Your task to perform on an android device: set default search engine in the chrome app Image 0: 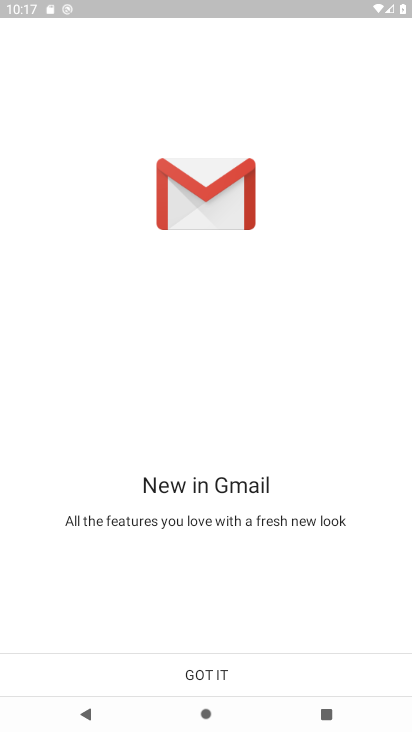
Step 0: press home button
Your task to perform on an android device: set default search engine in the chrome app Image 1: 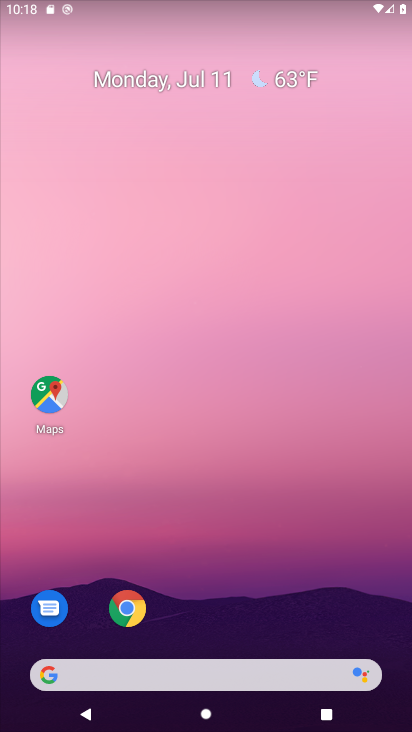
Step 1: click (124, 610)
Your task to perform on an android device: set default search engine in the chrome app Image 2: 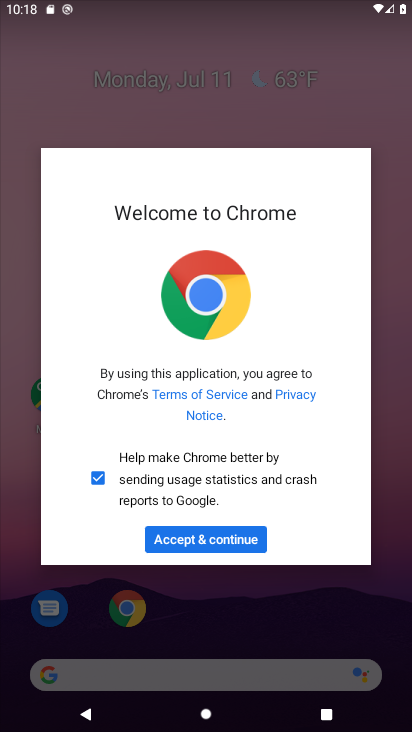
Step 2: click (229, 537)
Your task to perform on an android device: set default search engine in the chrome app Image 3: 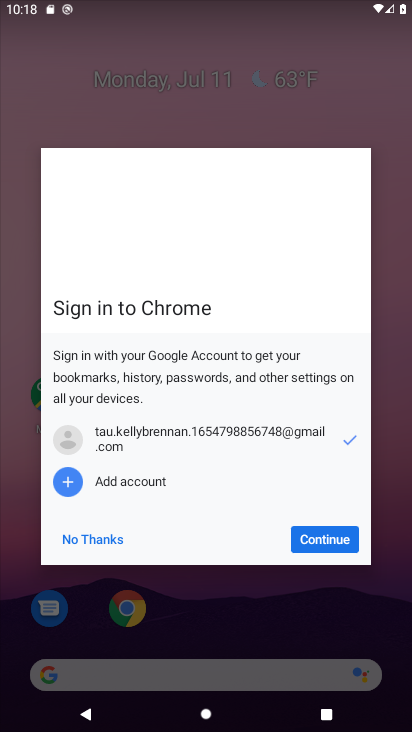
Step 3: click (318, 537)
Your task to perform on an android device: set default search engine in the chrome app Image 4: 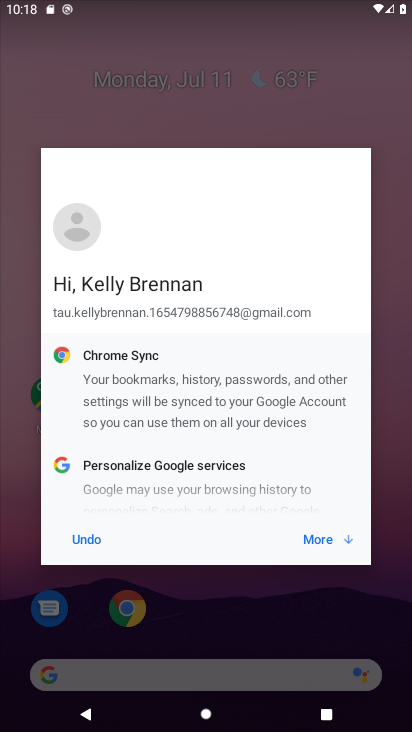
Step 4: click (323, 537)
Your task to perform on an android device: set default search engine in the chrome app Image 5: 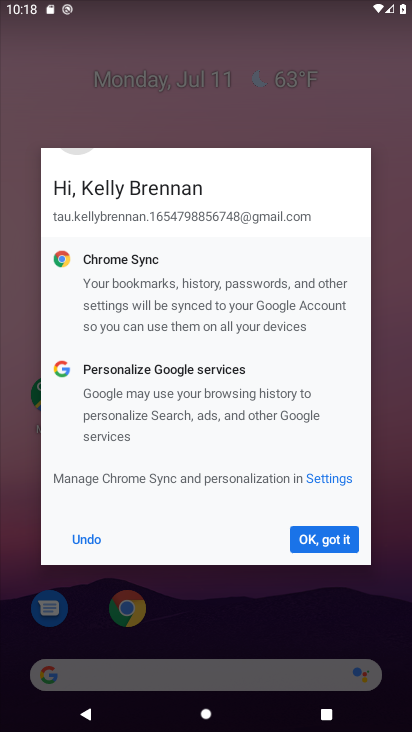
Step 5: click (323, 537)
Your task to perform on an android device: set default search engine in the chrome app Image 6: 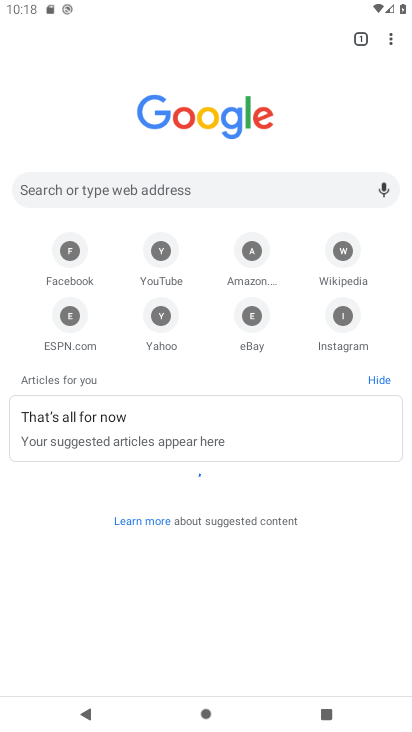
Step 6: click (390, 42)
Your task to perform on an android device: set default search engine in the chrome app Image 7: 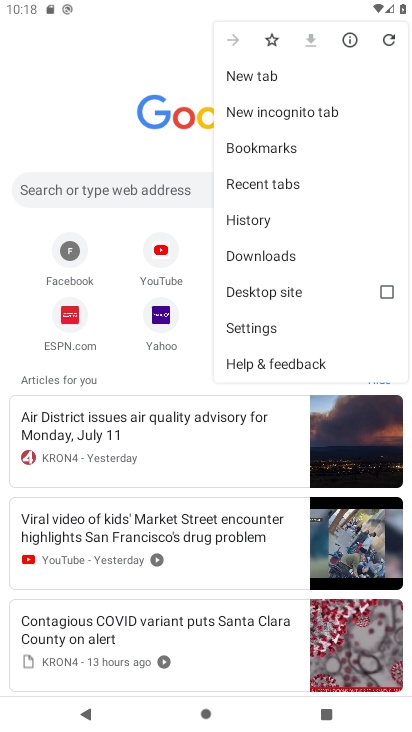
Step 7: click (261, 320)
Your task to perform on an android device: set default search engine in the chrome app Image 8: 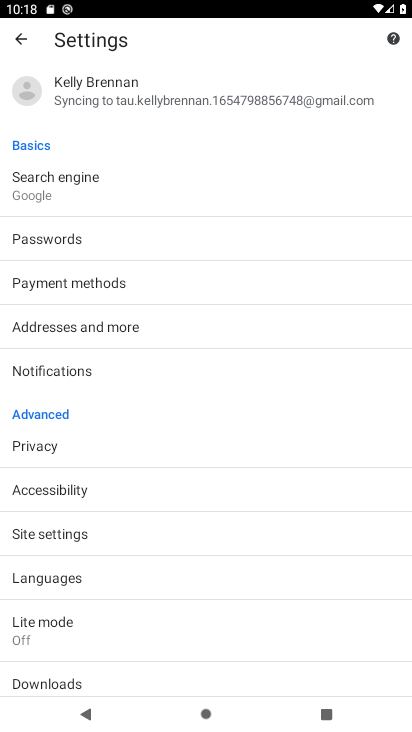
Step 8: click (67, 197)
Your task to perform on an android device: set default search engine in the chrome app Image 9: 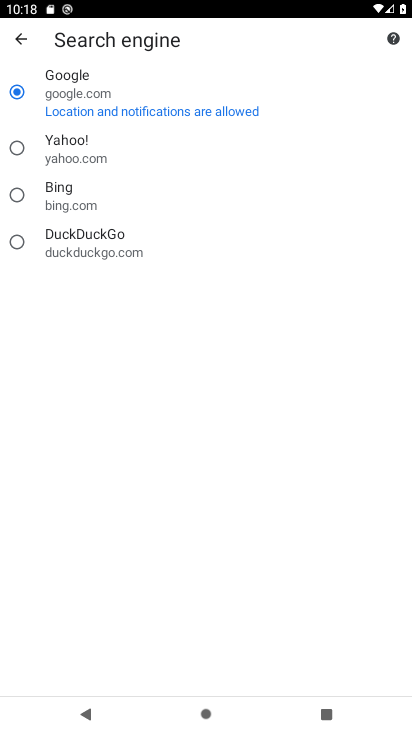
Step 9: click (68, 148)
Your task to perform on an android device: set default search engine in the chrome app Image 10: 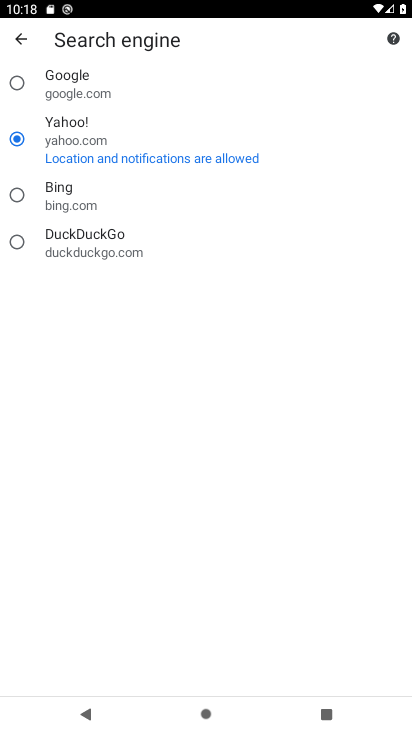
Step 10: task complete